Your task to perform on an android device: Show me productivity apps on the Play Store Image 0: 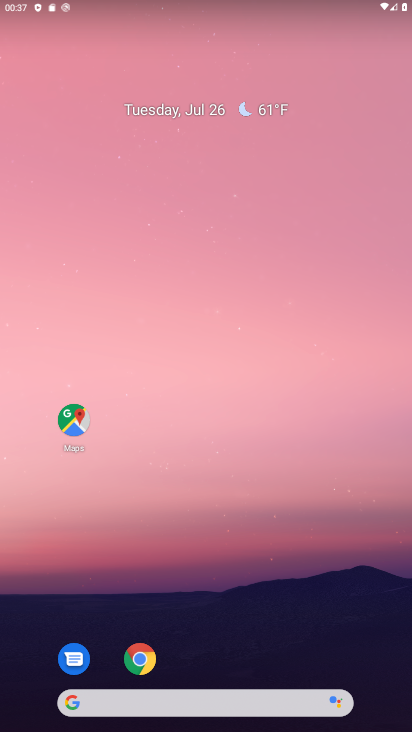
Step 0: drag from (291, 591) to (247, 16)
Your task to perform on an android device: Show me productivity apps on the Play Store Image 1: 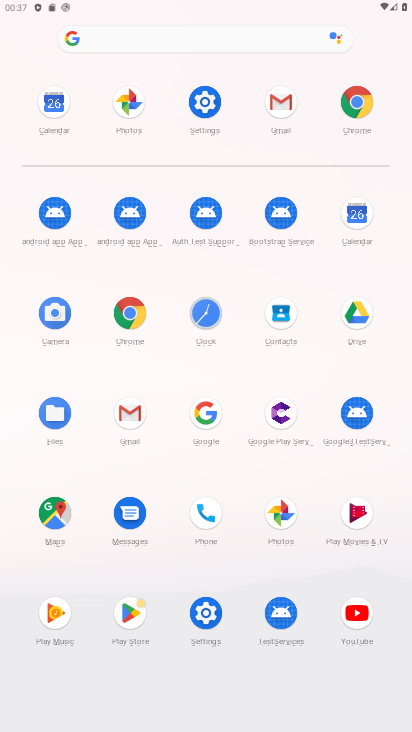
Step 1: click (122, 624)
Your task to perform on an android device: Show me productivity apps on the Play Store Image 2: 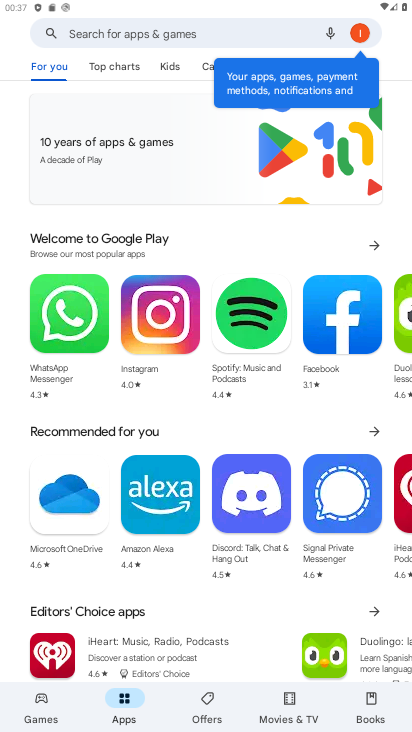
Step 2: task complete